Your task to perform on an android device: Set the phone to "Do not disturb". Image 0: 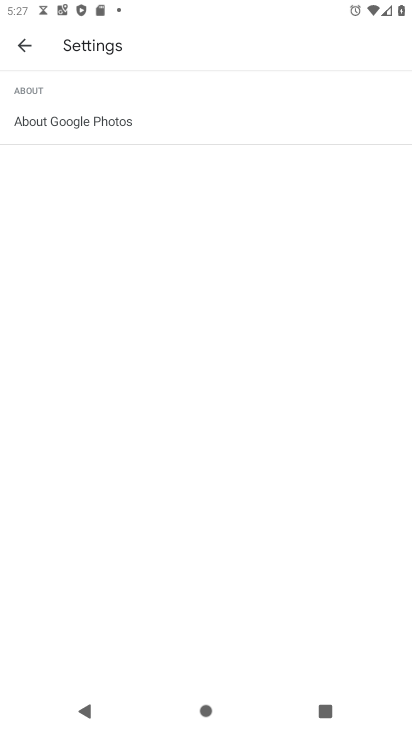
Step 0: press back button
Your task to perform on an android device: Set the phone to "Do not disturb". Image 1: 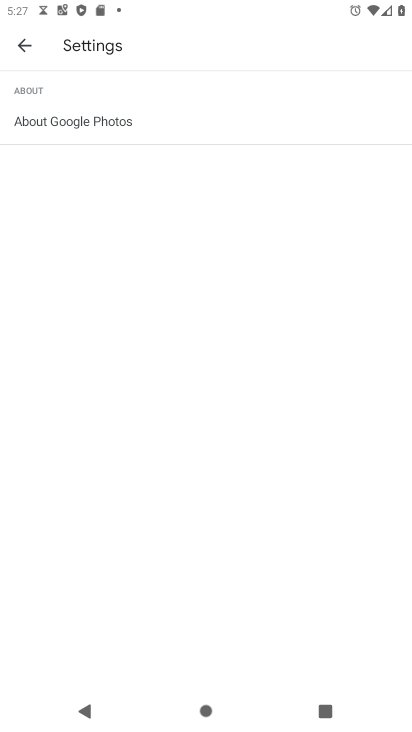
Step 1: press back button
Your task to perform on an android device: Set the phone to "Do not disturb". Image 2: 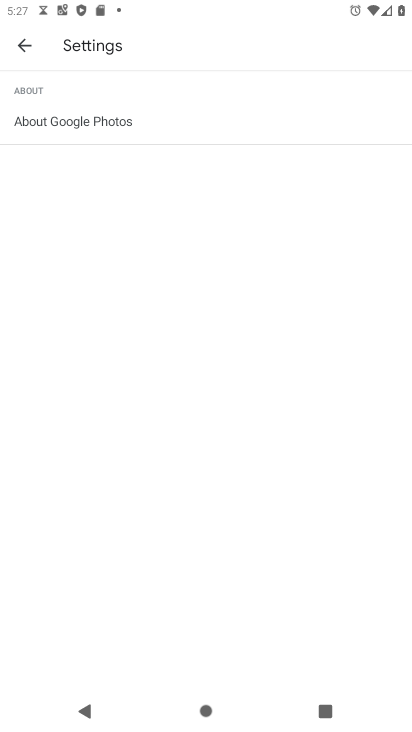
Step 2: press home button
Your task to perform on an android device: Set the phone to "Do not disturb". Image 3: 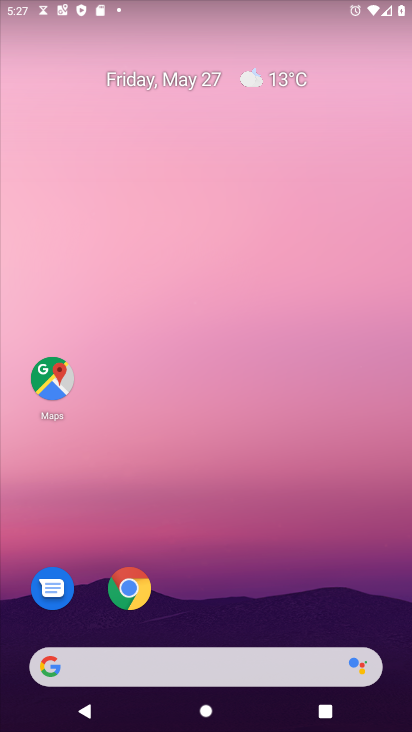
Step 3: drag from (226, 8) to (56, 565)
Your task to perform on an android device: Set the phone to "Do not disturb". Image 4: 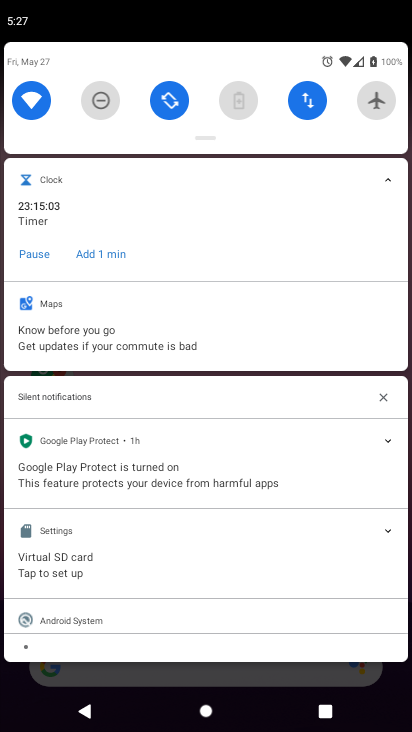
Step 4: click (94, 104)
Your task to perform on an android device: Set the phone to "Do not disturb". Image 5: 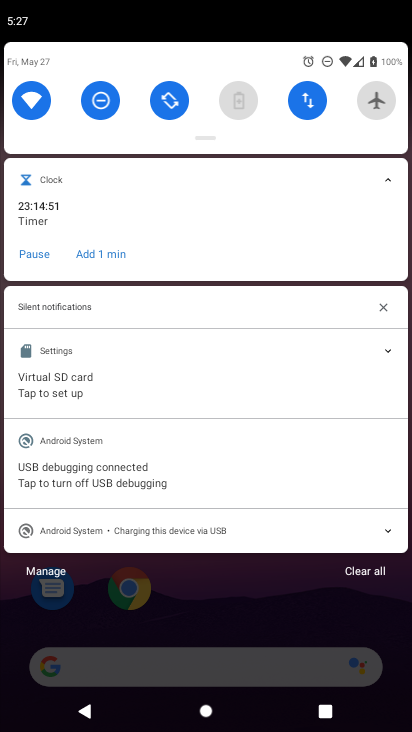
Step 5: task complete